Your task to perform on an android device: Search for Mexican restaurants on Maps Image 0: 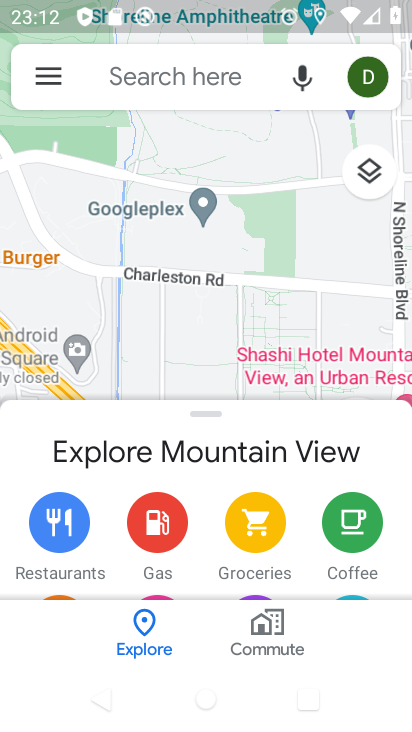
Step 0: click (194, 51)
Your task to perform on an android device: Search for Mexican restaurants on Maps Image 1: 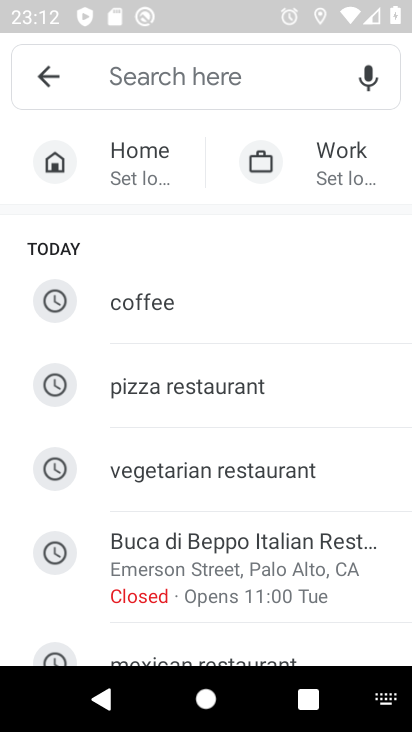
Step 1: type "mexican restaurant"
Your task to perform on an android device: Search for Mexican restaurants on Maps Image 2: 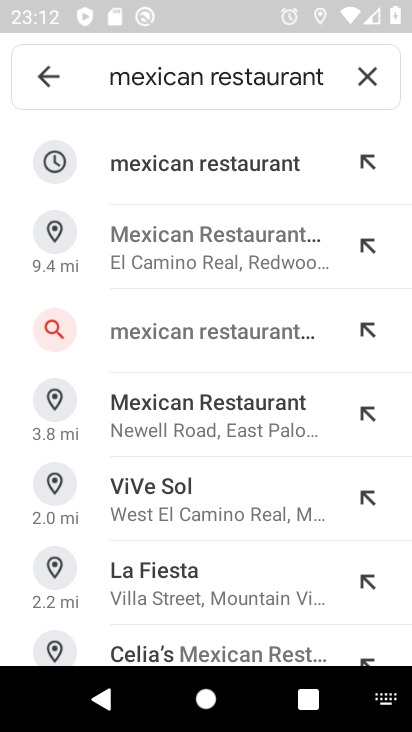
Step 2: type ""
Your task to perform on an android device: Search for Mexican restaurants on Maps Image 3: 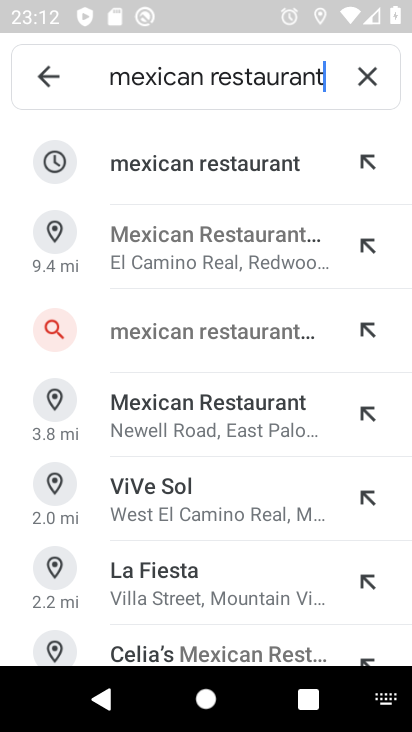
Step 3: click (249, 353)
Your task to perform on an android device: Search for Mexican restaurants on Maps Image 4: 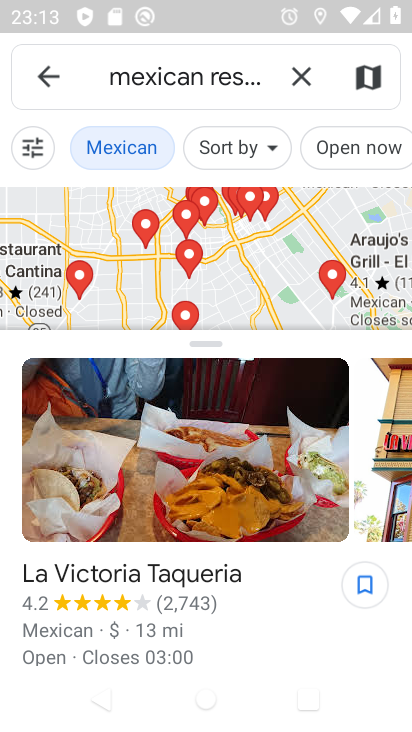
Step 4: task complete